Your task to perform on an android device: Check the news Image 0: 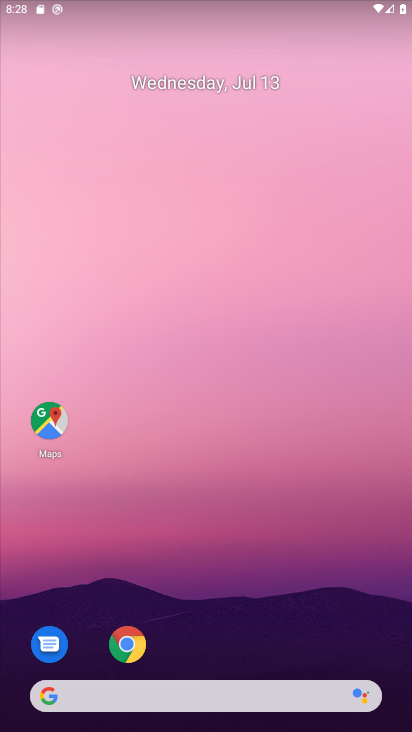
Step 0: click (257, 698)
Your task to perform on an android device: Check the news Image 1: 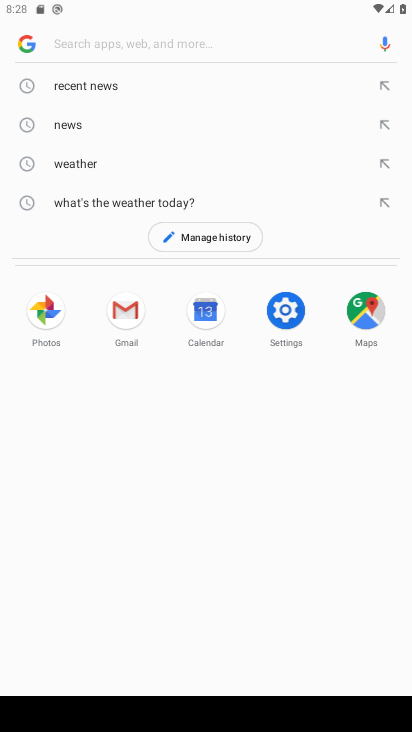
Step 1: type "news"
Your task to perform on an android device: Check the news Image 2: 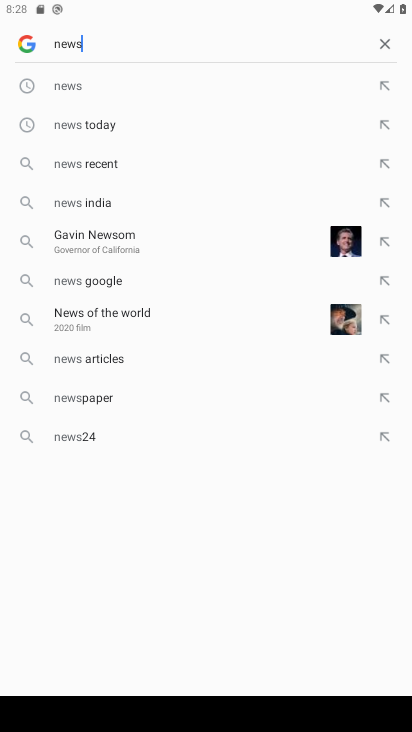
Step 2: click (102, 86)
Your task to perform on an android device: Check the news Image 3: 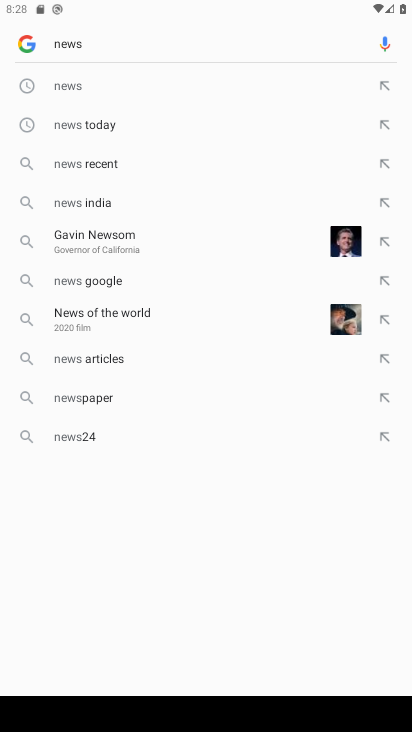
Step 3: click (102, 86)
Your task to perform on an android device: Check the news Image 4: 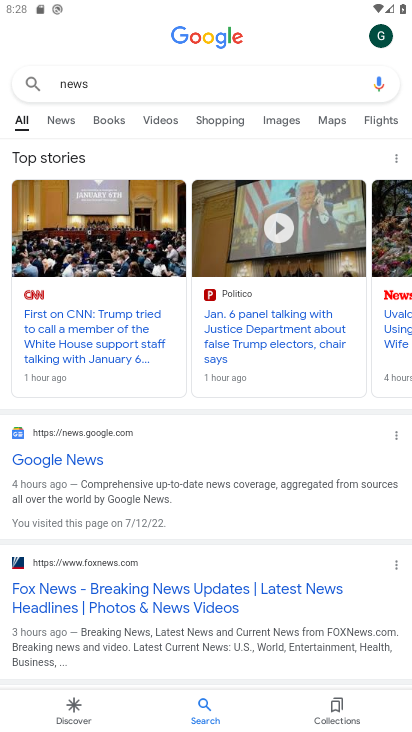
Step 4: task complete